Your task to perform on an android device: Do I have any events tomorrow? Image 0: 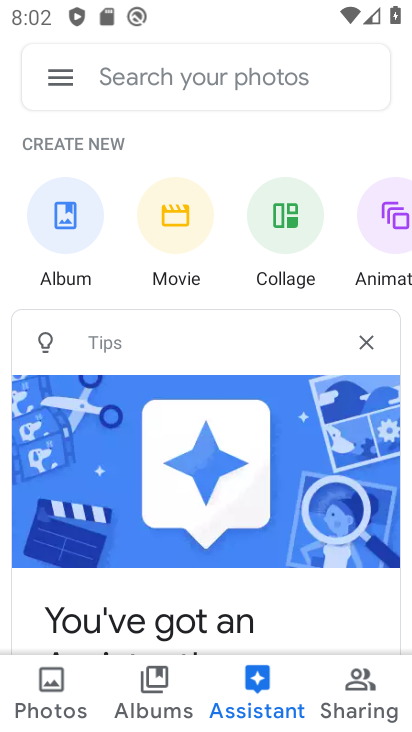
Step 0: press home button
Your task to perform on an android device: Do I have any events tomorrow? Image 1: 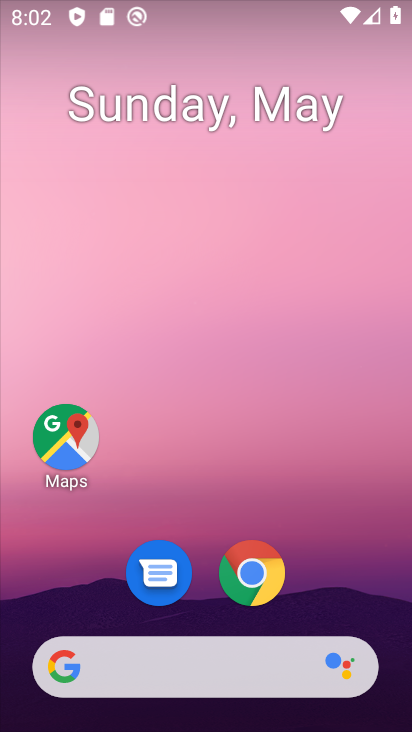
Step 1: drag from (384, 622) to (254, 146)
Your task to perform on an android device: Do I have any events tomorrow? Image 2: 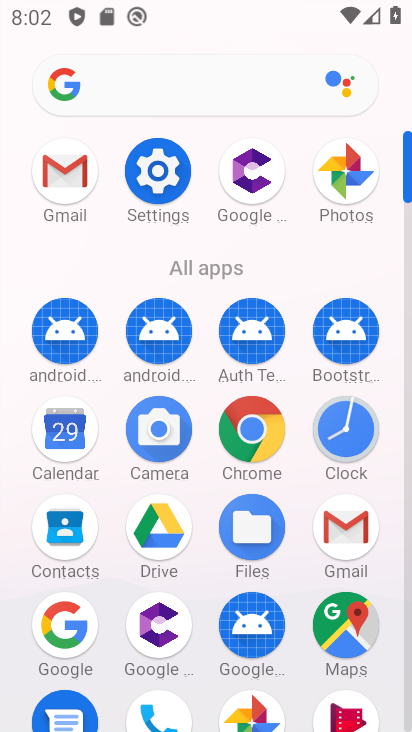
Step 2: click (57, 421)
Your task to perform on an android device: Do I have any events tomorrow? Image 3: 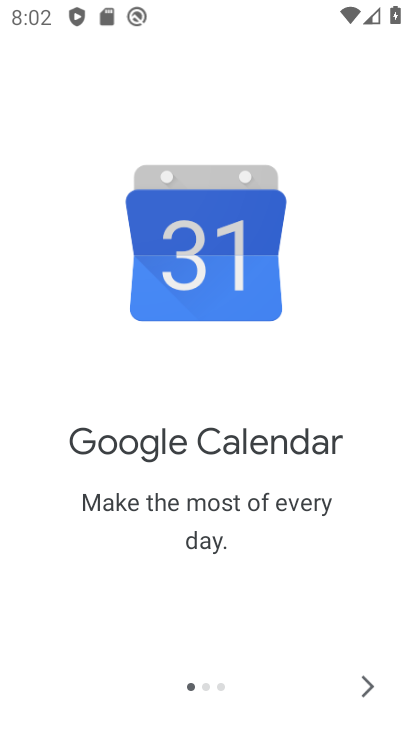
Step 3: click (370, 685)
Your task to perform on an android device: Do I have any events tomorrow? Image 4: 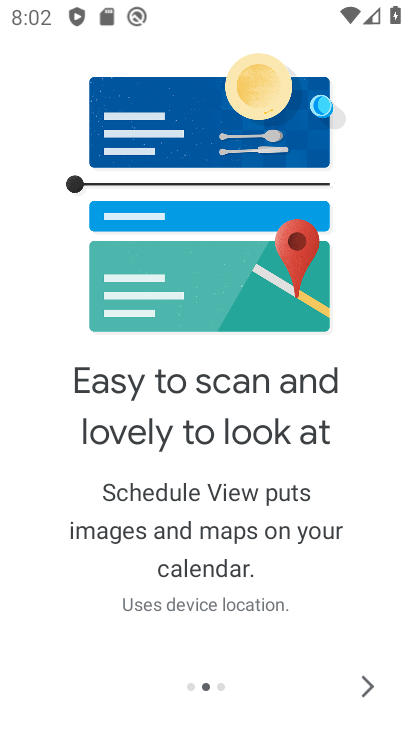
Step 4: click (370, 685)
Your task to perform on an android device: Do I have any events tomorrow? Image 5: 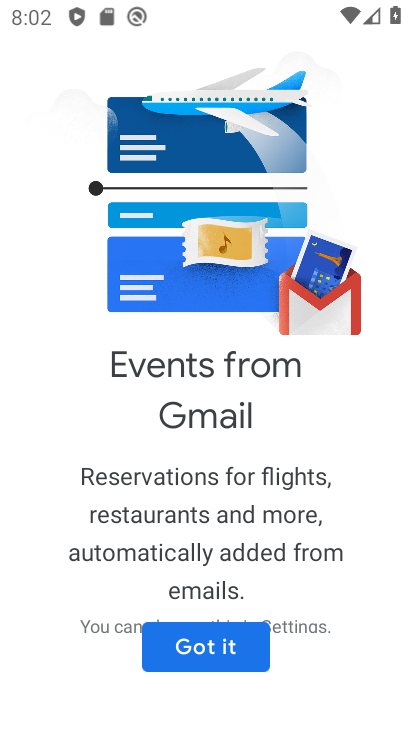
Step 5: click (250, 658)
Your task to perform on an android device: Do I have any events tomorrow? Image 6: 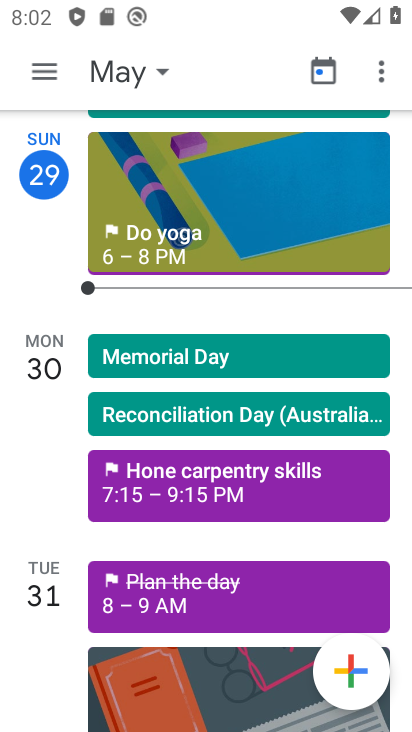
Step 6: click (47, 71)
Your task to perform on an android device: Do I have any events tomorrow? Image 7: 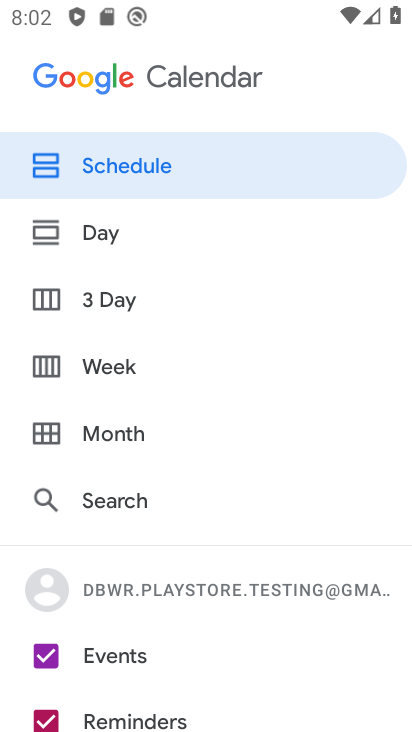
Step 7: drag from (139, 583) to (115, 212)
Your task to perform on an android device: Do I have any events tomorrow? Image 8: 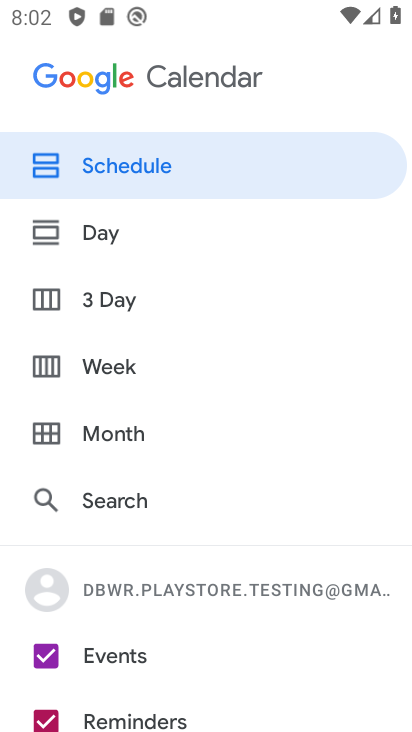
Step 8: drag from (142, 566) to (135, 209)
Your task to perform on an android device: Do I have any events tomorrow? Image 9: 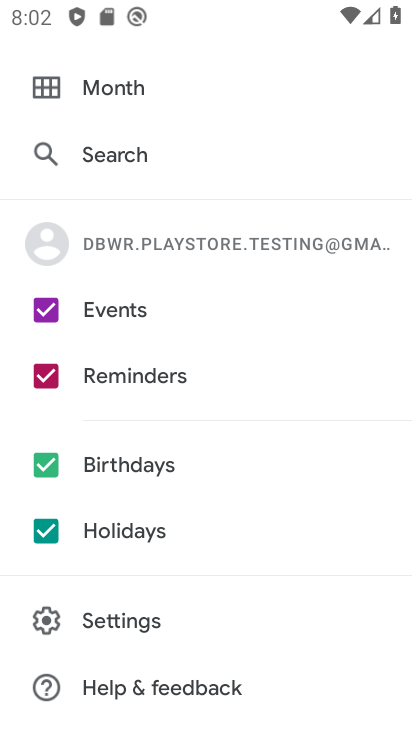
Step 9: click (47, 536)
Your task to perform on an android device: Do I have any events tomorrow? Image 10: 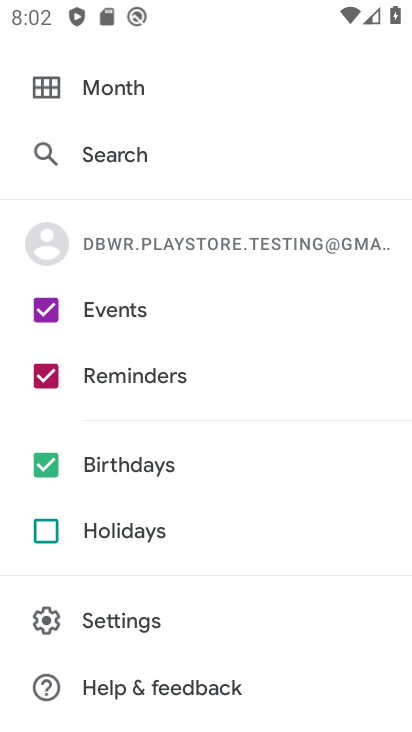
Step 10: click (43, 469)
Your task to perform on an android device: Do I have any events tomorrow? Image 11: 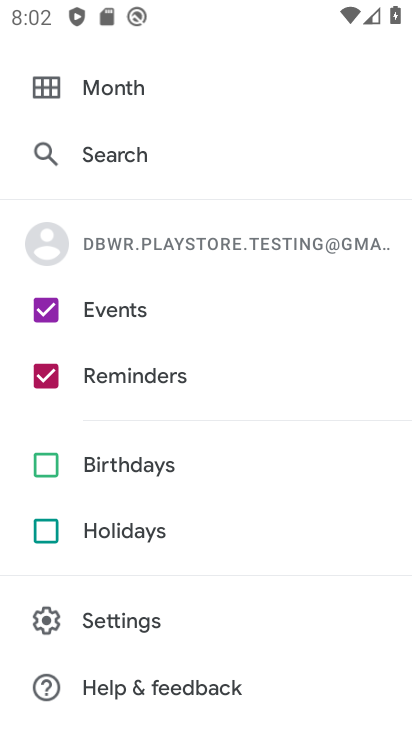
Step 11: click (46, 382)
Your task to perform on an android device: Do I have any events tomorrow? Image 12: 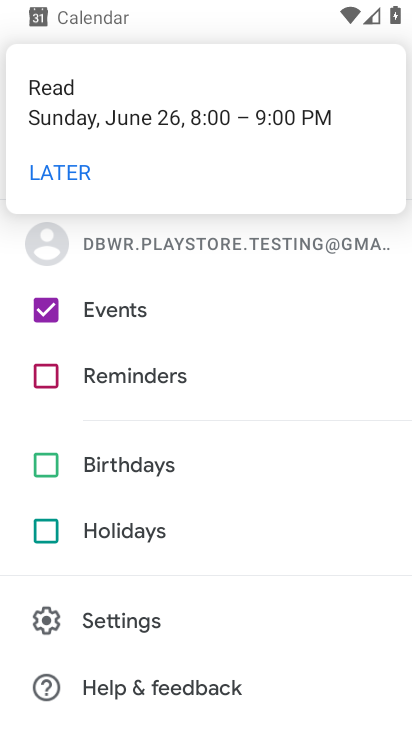
Step 12: drag from (156, 171) to (140, 539)
Your task to perform on an android device: Do I have any events tomorrow? Image 13: 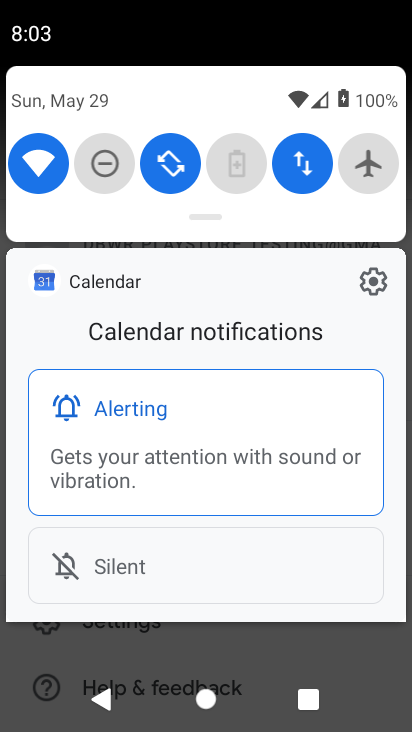
Step 13: press back button
Your task to perform on an android device: Do I have any events tomorrow? Image 14: 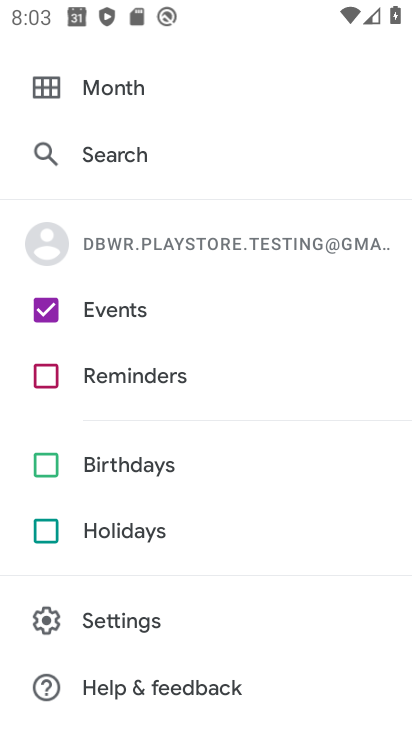
Step 14: drag from (120, 129) to (110, 518)
Your task to perform on an android device: Do I have any events tomorrow? Image 15: 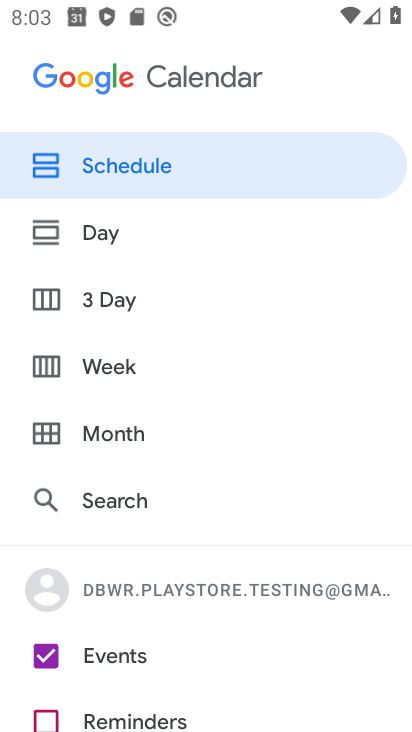
Step 15: click (127, 171)
Your task to perform on an android device: Do I have any events tomorrow? Image 16: 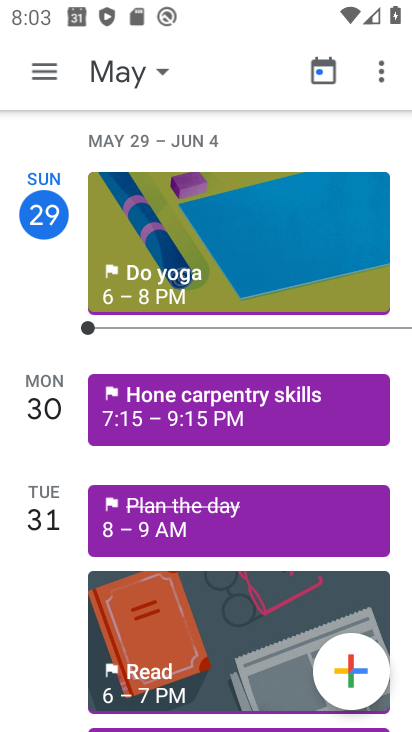
Step 16: task complete